Your task to perform on an android device: open sync settings in chrome Image 0: 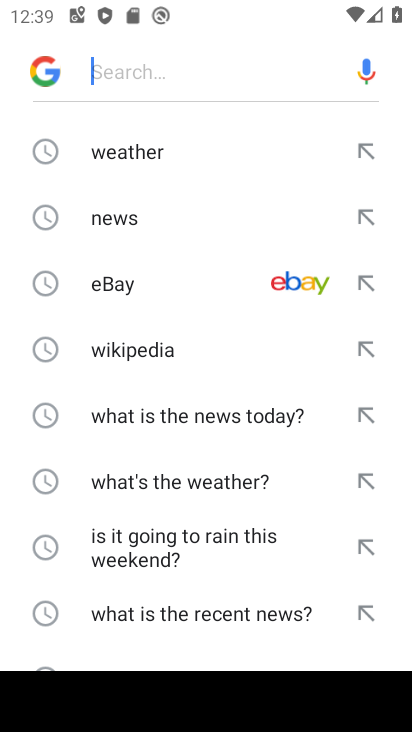
Step 0: press home button
Your task to perform on an android device: open sync settings in chrome Image 1: 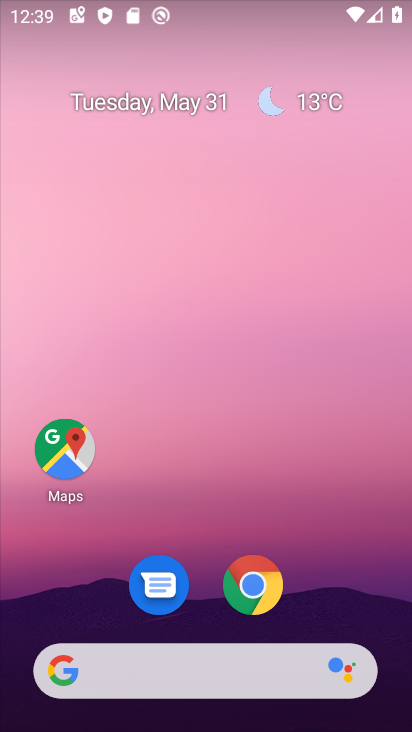
Step 1: click (260, 580)
Your task to perform on an android device: open sync settings in chrome Image 2: 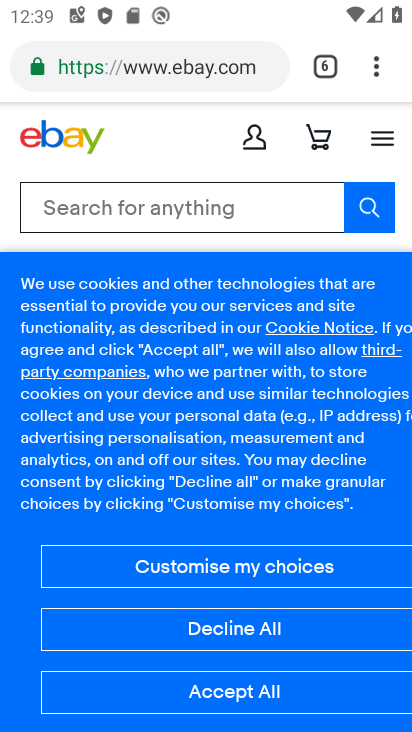
Step 2: click (377, 63)
Your task to perform on an android device: open sync settings in chrome Image 3: 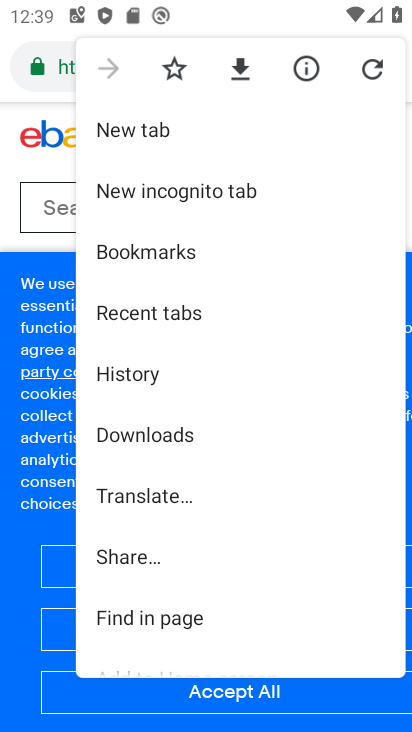
Step 3: drag from (191, 519) to (210, 295)
Your task to perform on an android device: open sync settings in chrome Image 4: 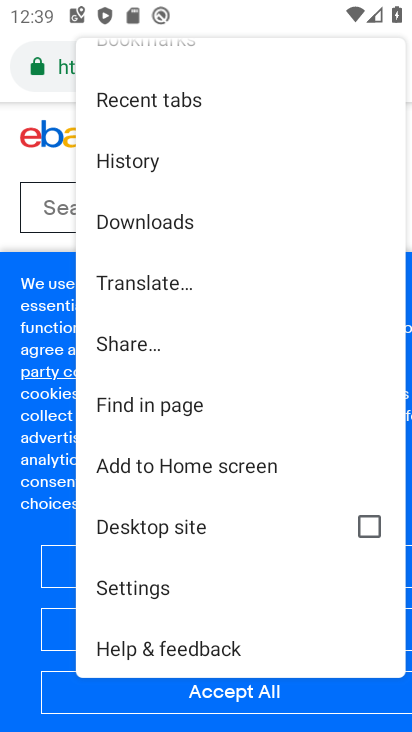
Step 4: click (158, 573)
Your task to perform on an android device: open sync settings in chrome Image 5: 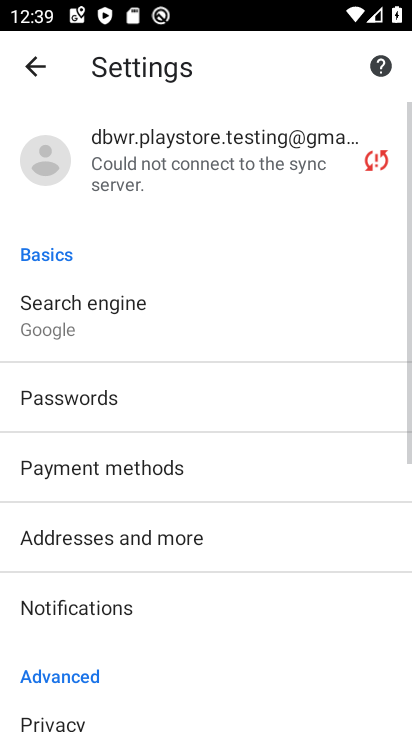
Step 5: click (241, 158)
Your task to perform on an android device: open sync settings in chrome Image 6: 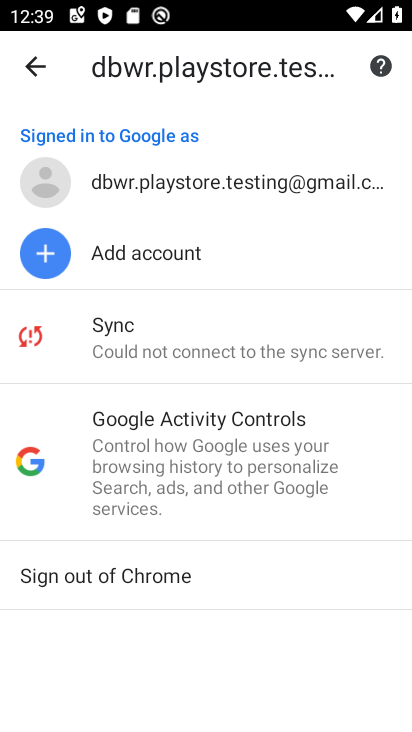
Step 6: click (192, 320)
Your task to perform on an android device: open sync settings in chrome Image 7: 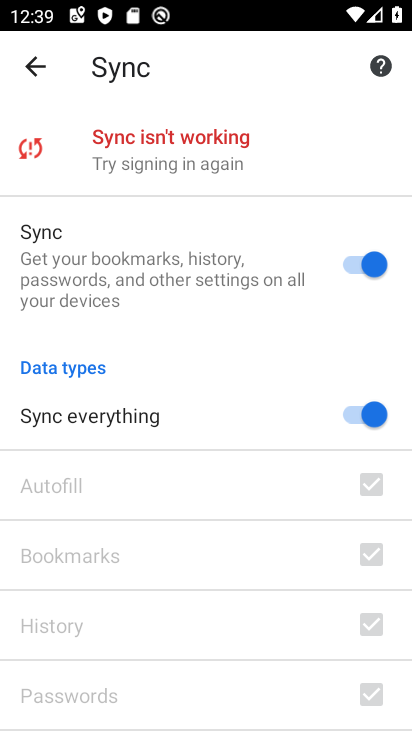
Step 7: task complete